Your task to perform on an android device: change timer sound Image 0: 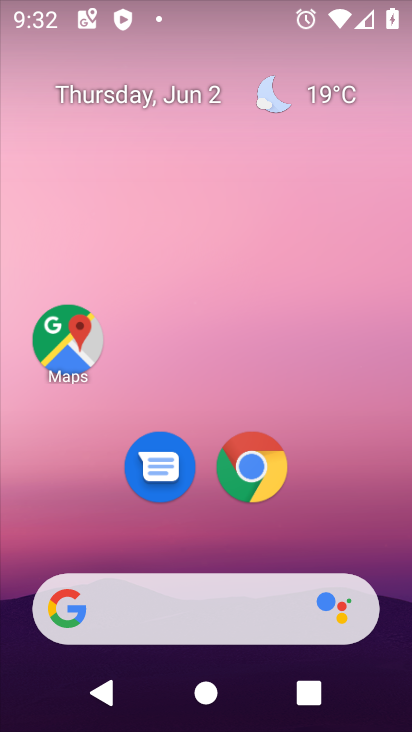
Step 0: drag from (195, 550) to (205, 4)
Your task to perform on an android device: change timer sound Image 1: 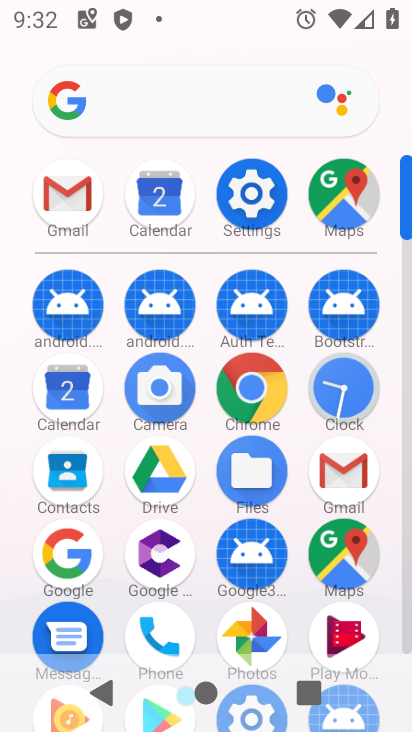
Step 1: click (235, 189)
Your task to perform on an android device: change timer sound Image 2: 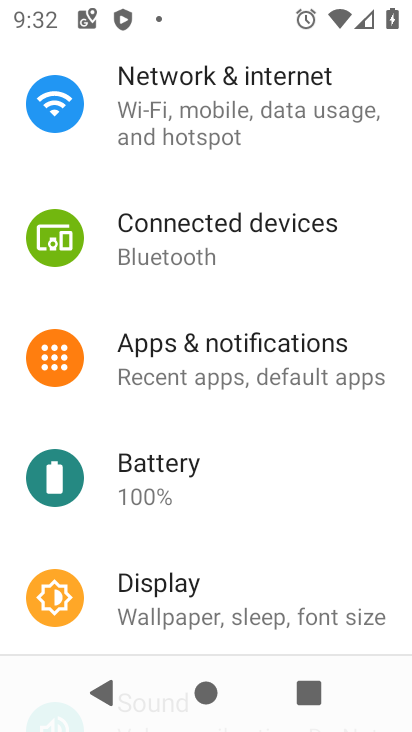
Step 2: press back button
Your task to perform on an android device: change timer sound Image 3: 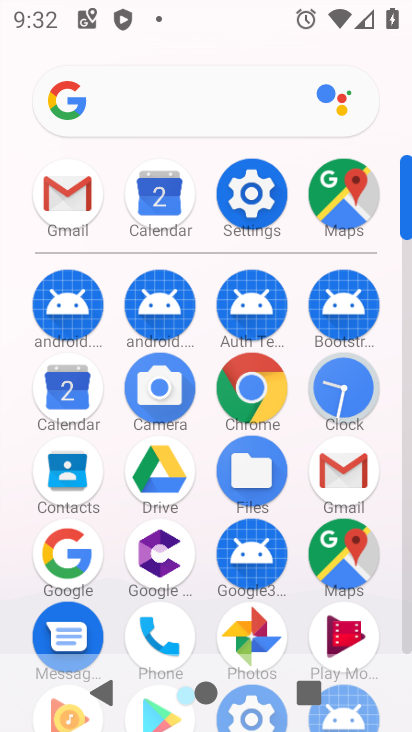
Step 3: click (349, 399)
Your task to perform on an android device: change timer sound Image 4: 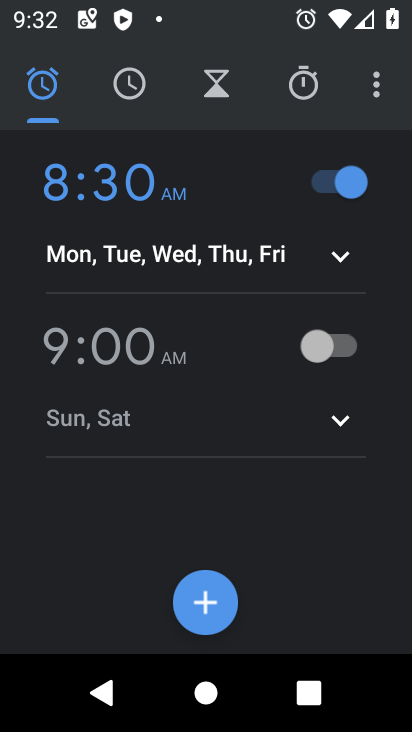
Step 4: click (371, 89)
Your task to perform on an android device: change timer sound Image 5: 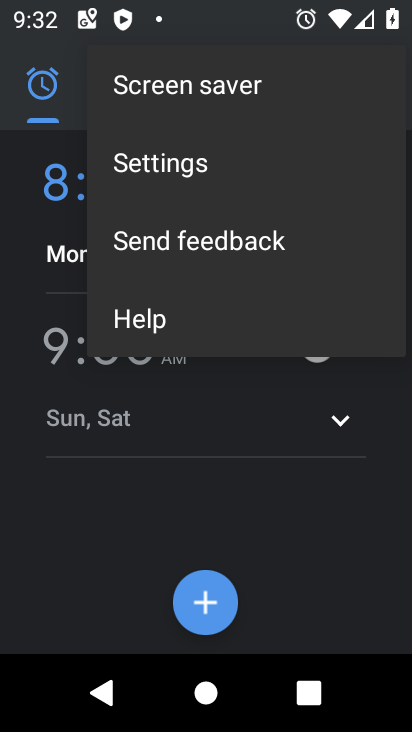
Step 5: click (166, 164)
Your task to perform on an android device: change timer sound Image 6: 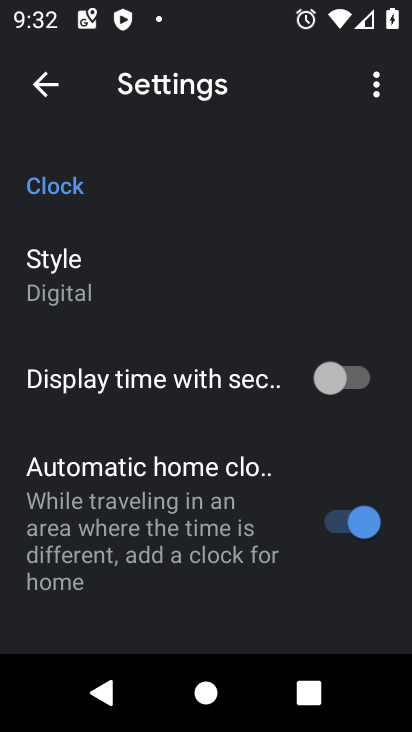
Step 6: drag from (204, 510) to (152, 175)
Your task to perform on an android device: change timer sound Image 7: 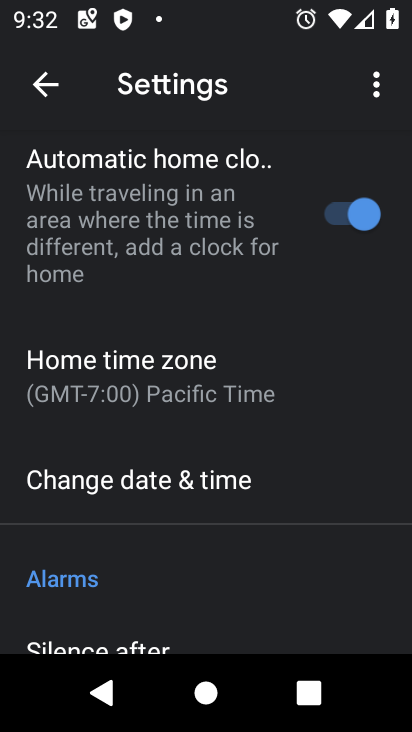
Step 7: drag from (180, 544) to (159, 166)
Your task to perform on an android device: change timer sound Image 8: 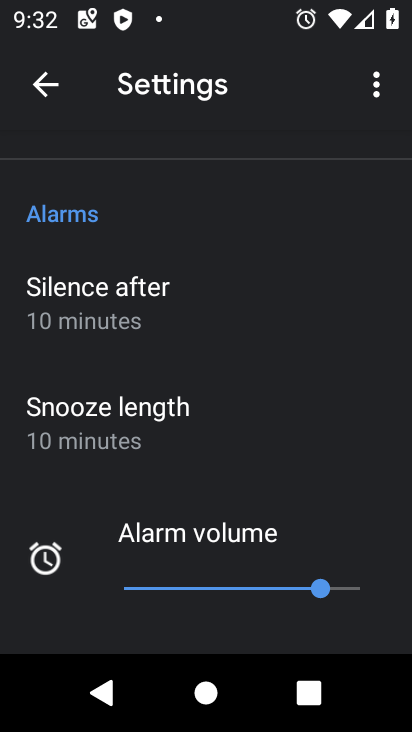
Step 8: drag from (198, 523) to (179, 173)
Your task to perform on an android device: change timer sound Image 9: 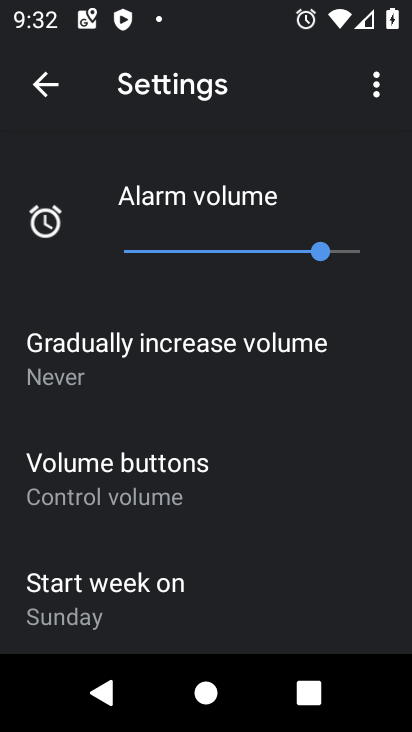
Step 9: drag from (196, 497) to (161, 259)
Your task to perform on an android device: change timer sound Image 10: 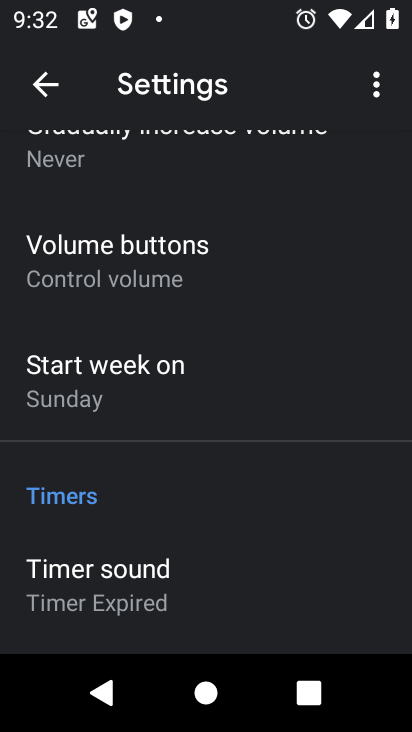
Step 10: drag from (216, 512) to (188, 214)
Your task to perform on an android device: change timer sound Image 11: 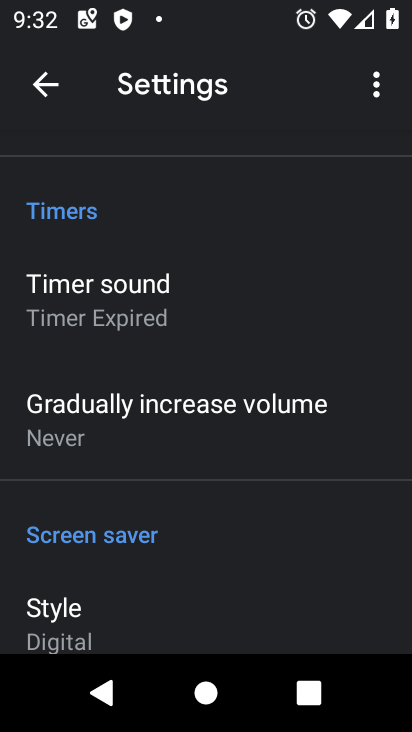
Step 11: click (95, 303)
Your task to perform on an android device: change timer sound Image 12: 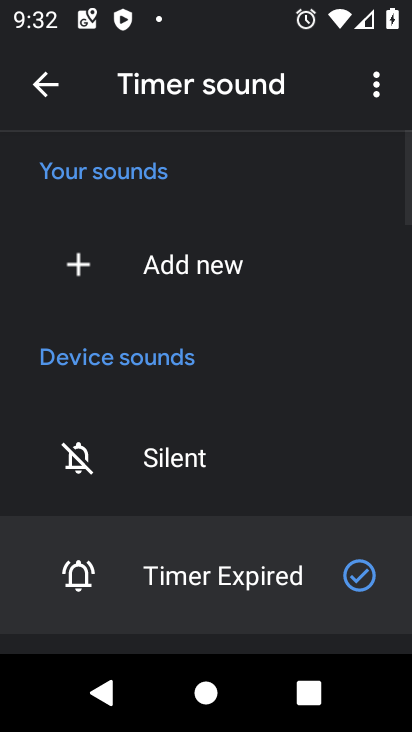
Step 12: drag from (151, 448) to (145, 176)
Your task to perform on an android device: change timer sound Image 13: 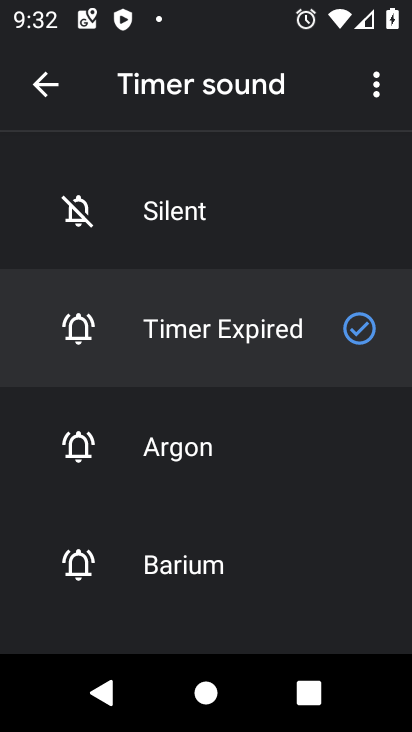
Step 13: click (81, 448)
Your task to perform on an android device: change timer sound Image 14: 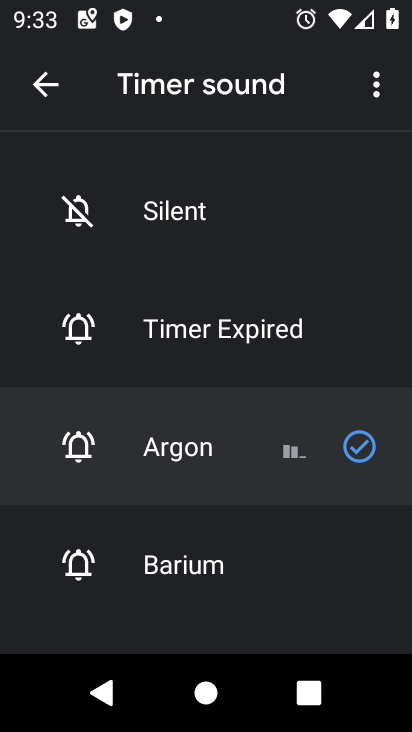
Step 14: task complete